Your task to perform on an android device: Go to internet settings Image 0: 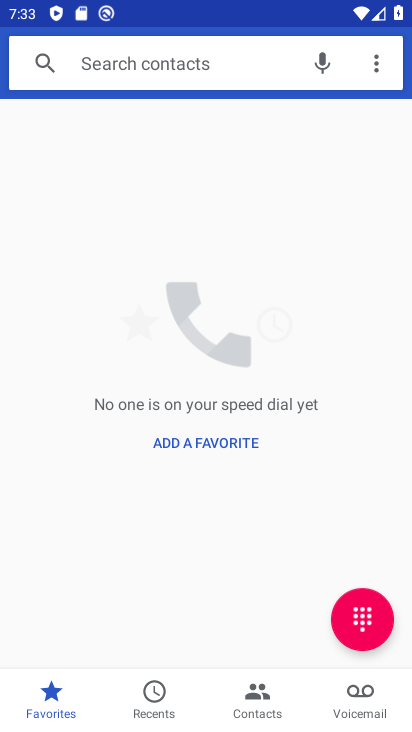
Step 0: press home button
Your task to perform on an android device: Go to internet settings Image 1: 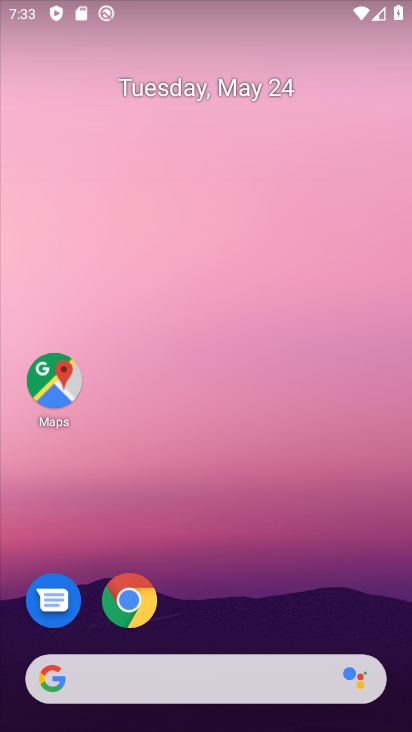
Step 1: drag from (376, 630) to (366, 163)
Your task to perform on an android device: Go to internet settings Image 2: 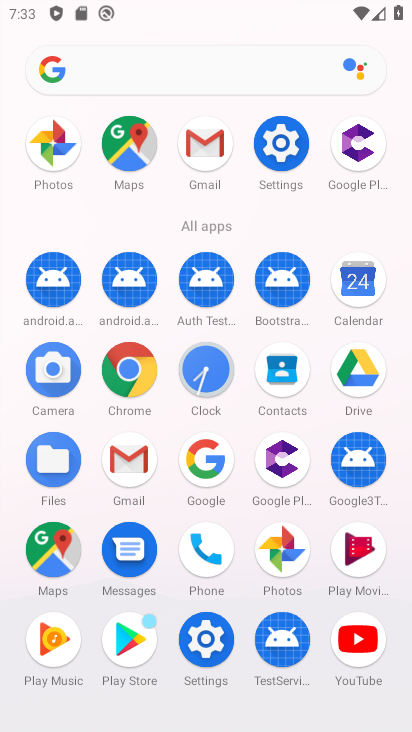
Step 2: click (288, 164)
Your task to perform on an android device: Go to internet settings Image 3: 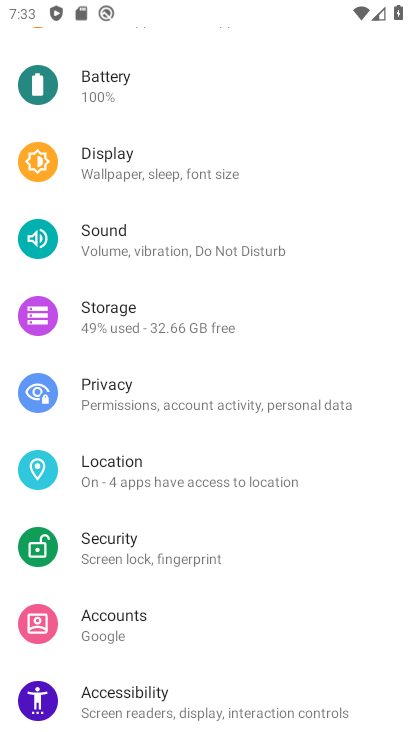
Step 3: drag from (349, 227) to (331, 365)
Your task to perform on an android device: Go to internet settings Image 4: 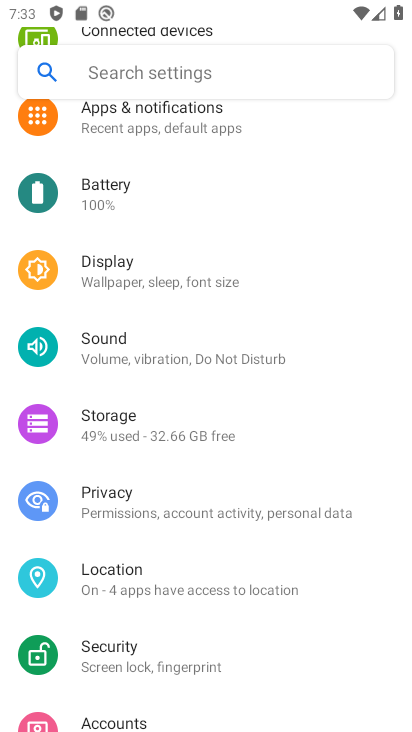
Step 4: drag from (353, 240) to (355, 337)
Your task to perform on an android device: Go to internet settings Image 5: 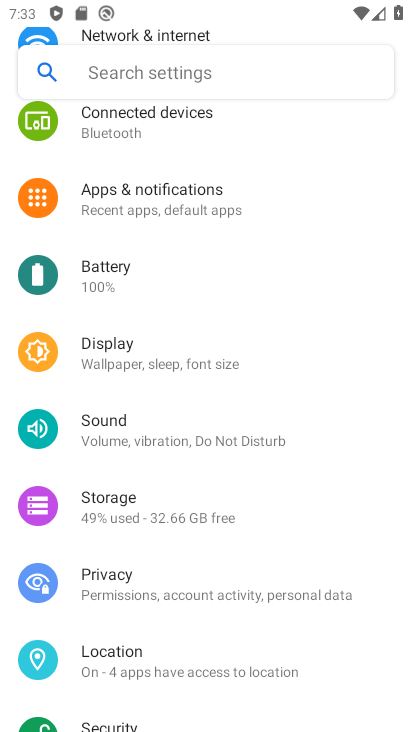
Step 5: drag from (363, 181) to (353, 300)
Your task to perform on an android device: Go to internet settings Image 6: 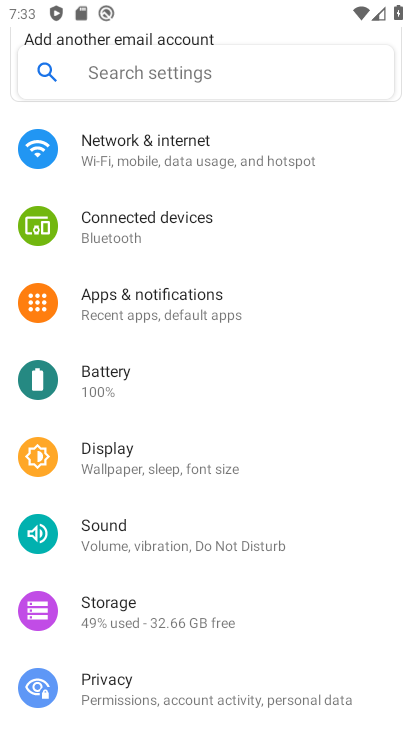
Step 6: drag from (355, 197) to (358, 306)
Your task to perform on an android device: Go to internet settings Image 7: 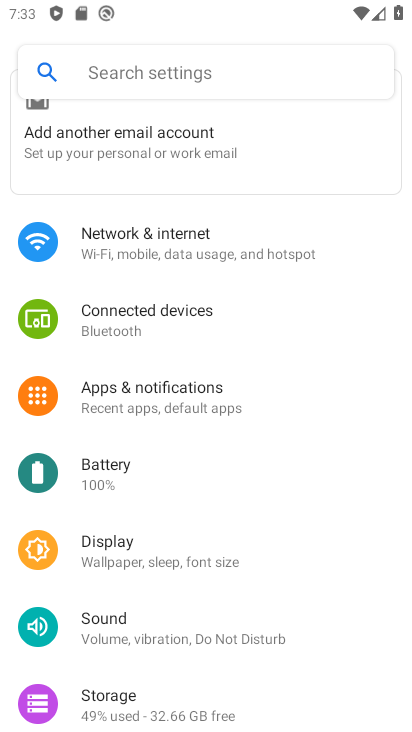
Step 7: drag from (362, 277) to (359, 372)
Your task to perform on an android device: Go to internet settings Image 8: 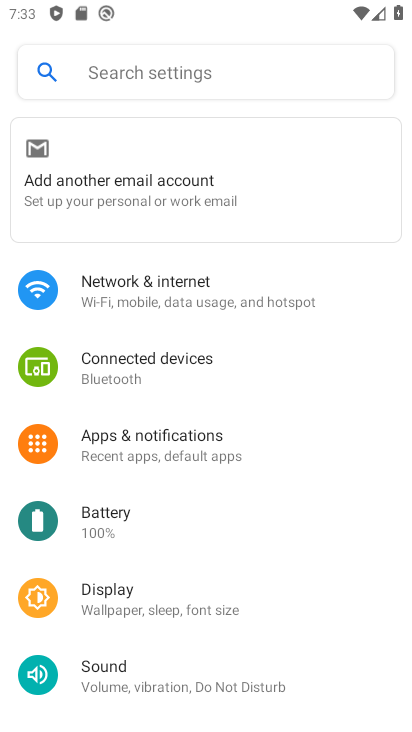
Step 8: drag from (361, 180) to (357, 341)
Your task to perform on an android device: Go to internet settings Image 9: 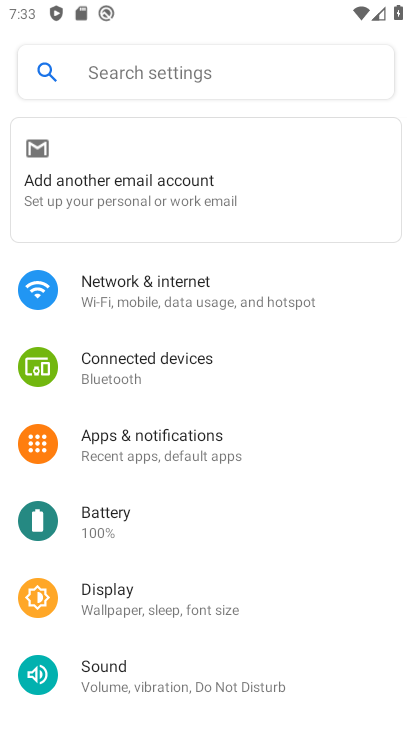
Step 9: click (237, 308)
Your task to perform on an android device: Go to internet settings Image 10: 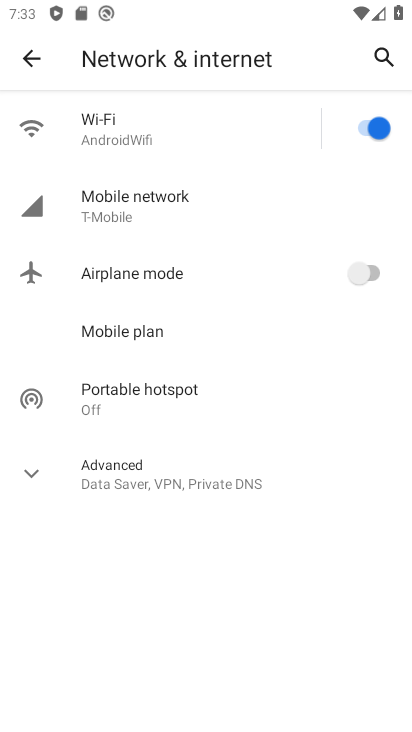
Step 10: task complete